Your task to perform on an android device: Open the calendar app, open the side menu, and click the "Day" option Image 0: 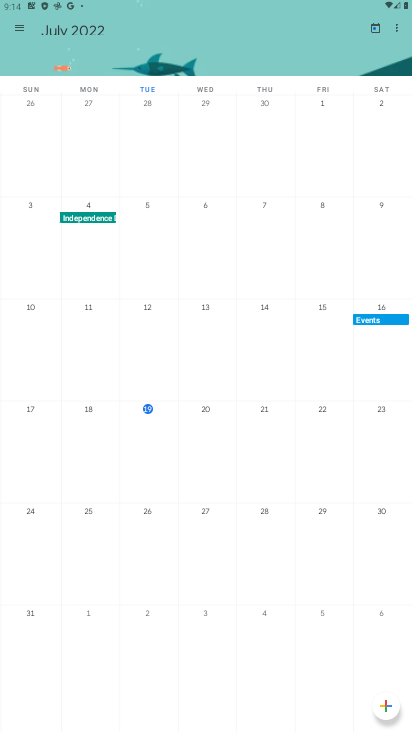
Step 0: click (15, 28)
Your task to perform on an android device: Open the calendar app, open the side menu, and click the "Day" option Image 1: 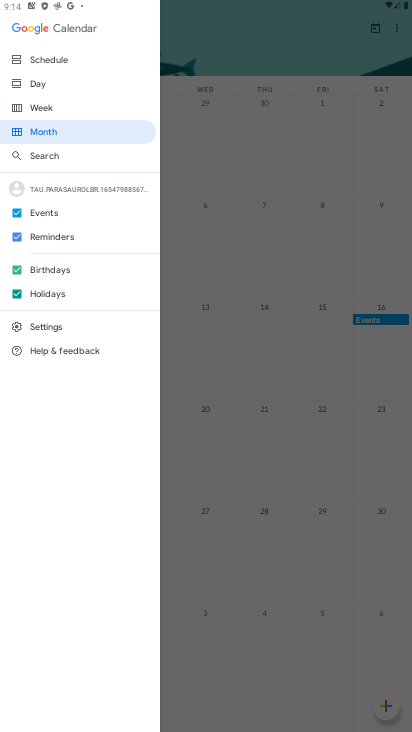
Step 1: click (52, 94)
Your task to perform on an android device: Open the calendar app, open the side menu, and click the "Day" option Image 2: 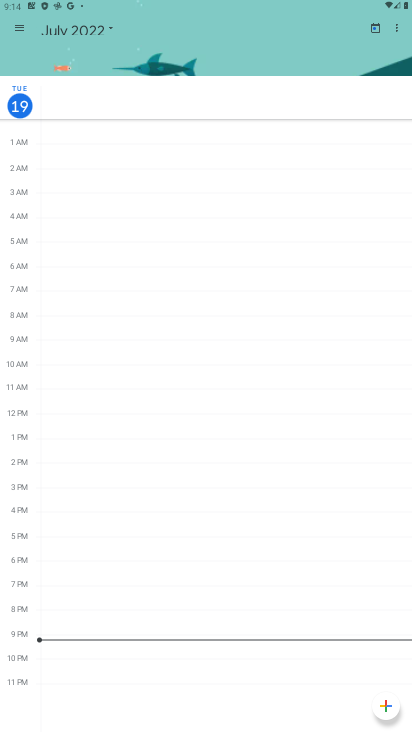
Step 2: task complete